Your task to perform on an android device: Open Youtube and go to the subscriptions tab Image 0: 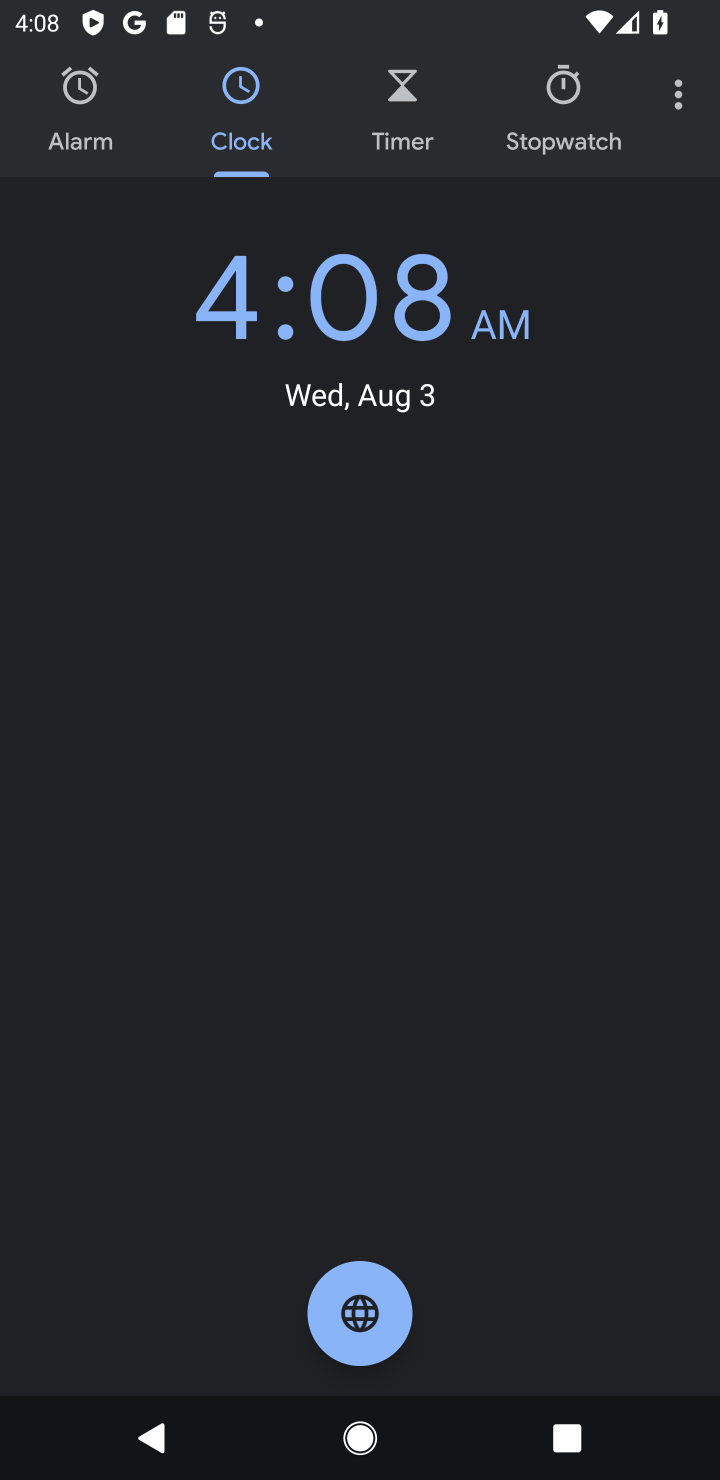
Step 0: press home button
Your task to perform on an android device: Open Youtube and go to the subscriptions tab Image 1: 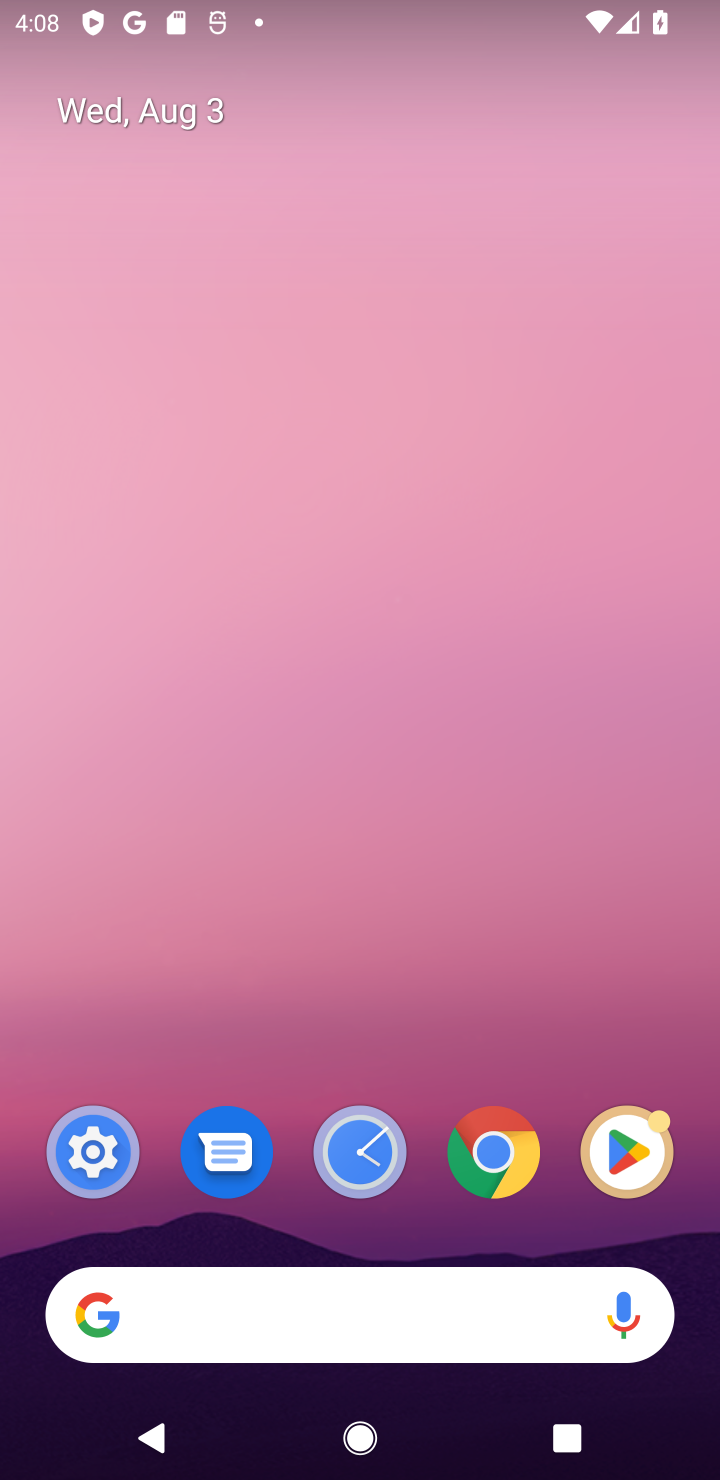
Step 1: drag from (327, 1297) to (339, 274)
Your task to perform on an android device: Open Youtube and go to the subscriptions tab Image 2: 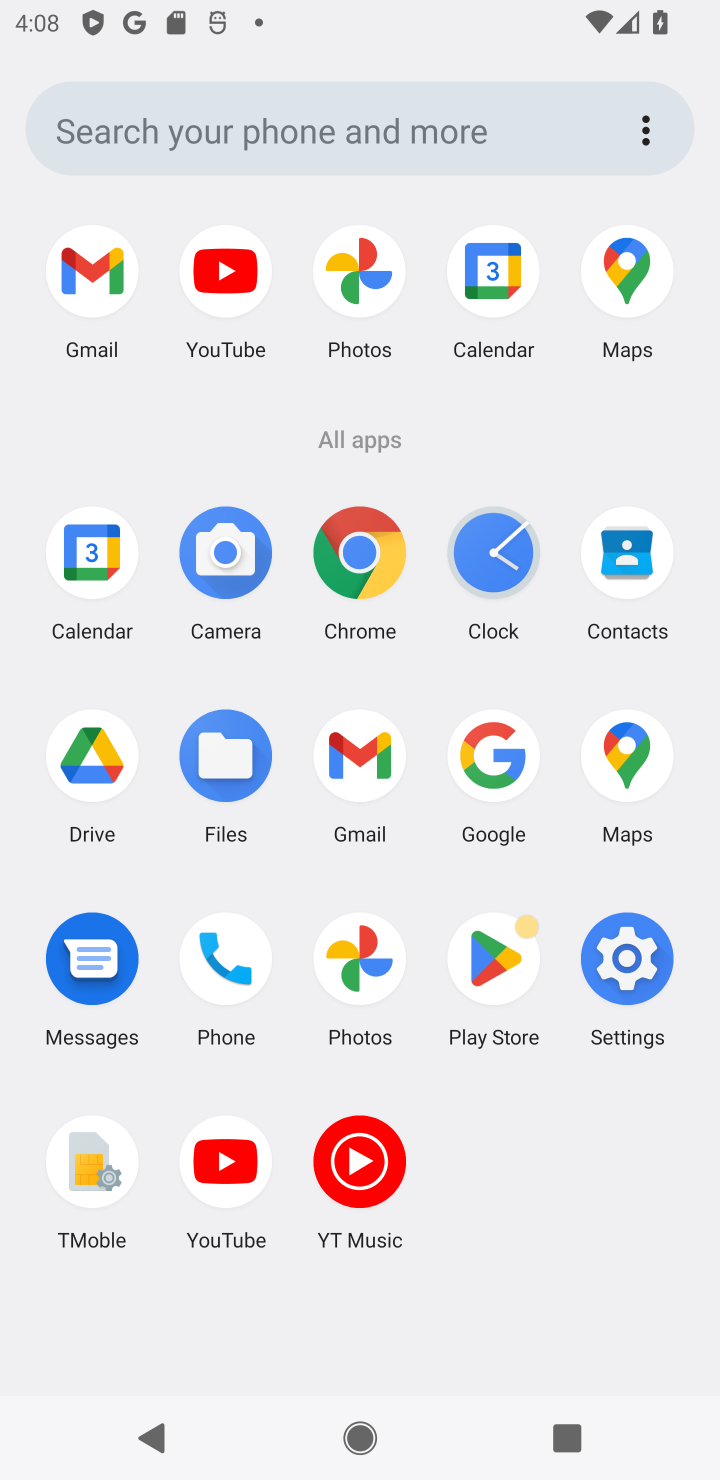
Step 2: click (202, 1161)
Your task to perform on an android device: Open Youtube and go to the subscriptions tab Image 3: 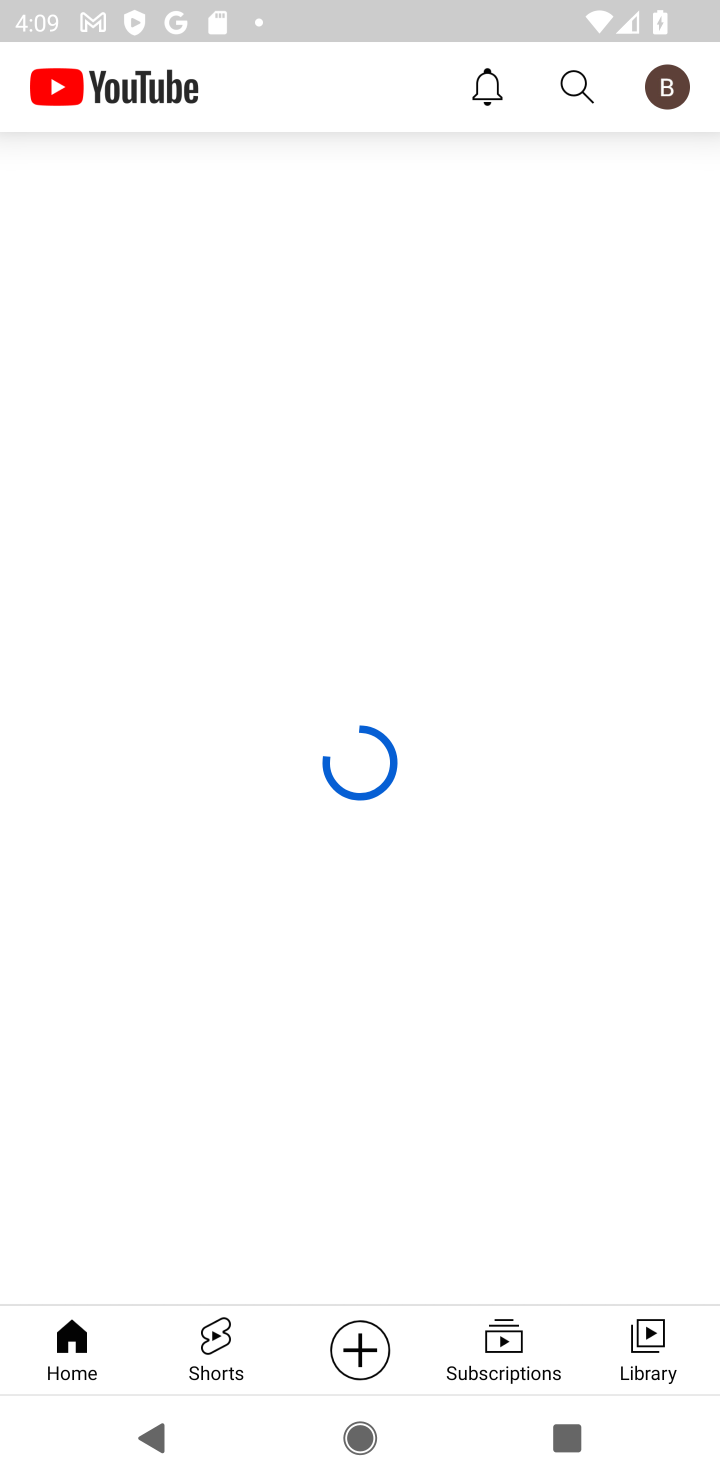
Step 3: click (553, 1359)
Your task to perform on an android device: Open Youtube and go to the subscriptions tab Image 4: 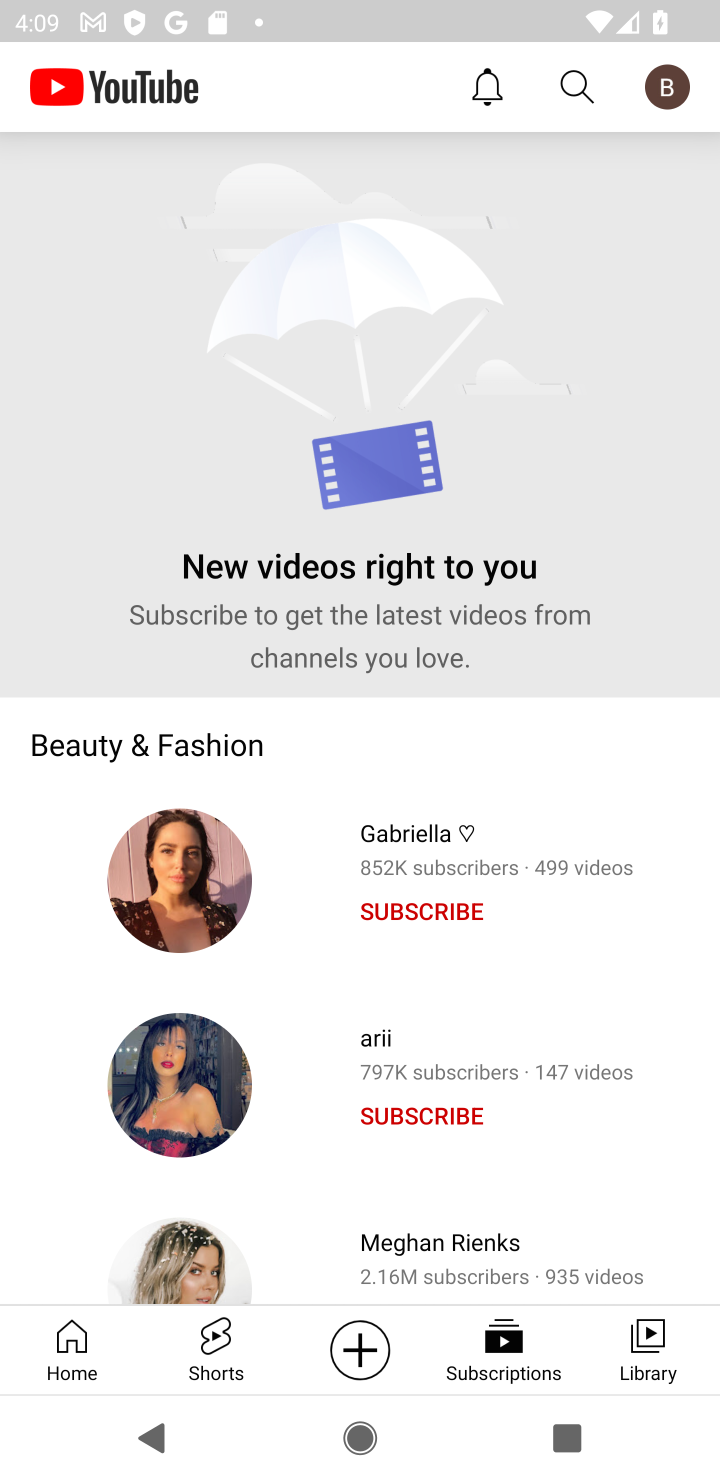
Step 4: task complete